Your task to perform on an android device: turn off notifications settings in the gmail app Image 0: 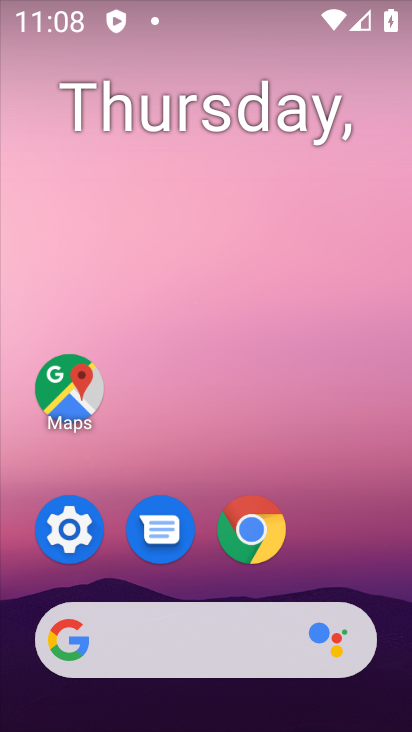
Step 0: drag from (278, 600) to (278, 0)
Your task to perform on an android device: turn off notifications settings in the gmail app Image 1: 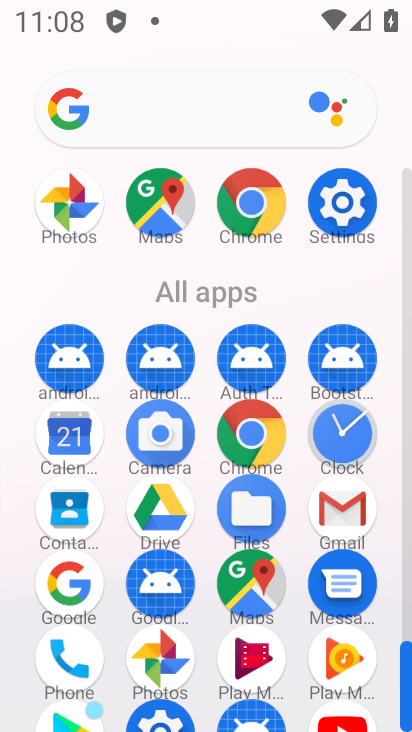
Step 1: click (336, 496)
Your task to perform on an android device: turn off notifications settings in the gmail app Image 2: 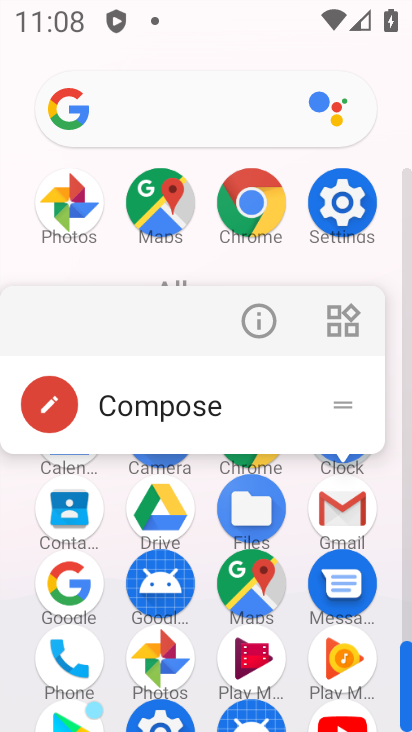
Step 2: click (265, 326)
Your task to perform on an android device: turn off notifications settings in the gmail app Image 3: 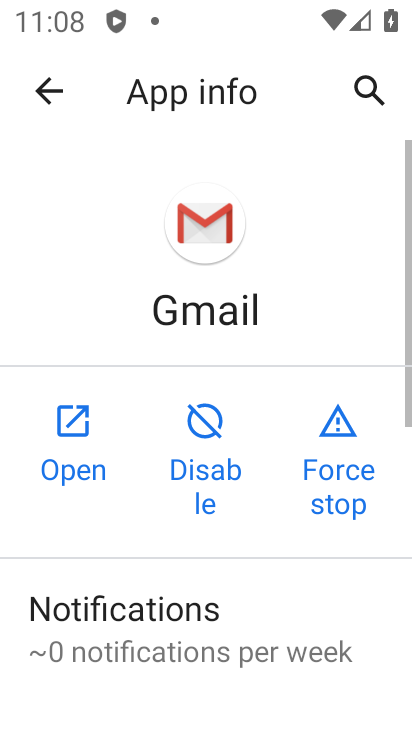
Step 3: click (136, 620)
Your task to perform on an android device: turn off notifications settings in the gmail app Image 4: 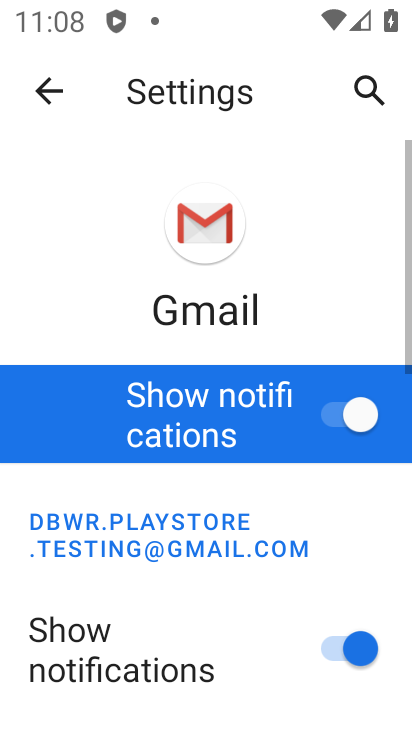
Step 4: click (365, 413)
Your task to perform on an android device: turn off notifications settings in the gmail app Image 5: 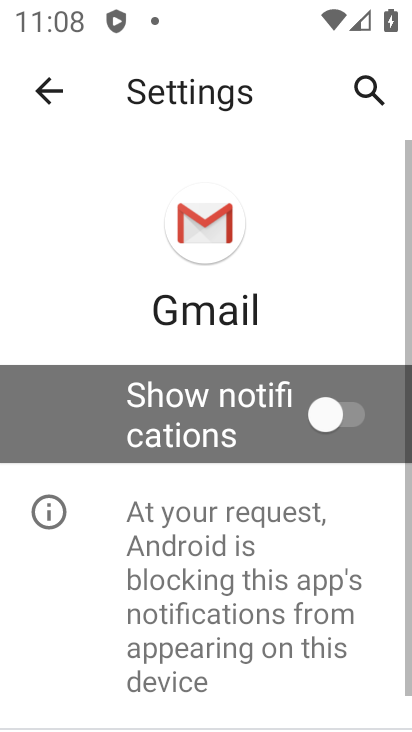
Step 5: task complete